Your task to perform on an android device: Open Youtube and go to the subscriptions tab Image 0: 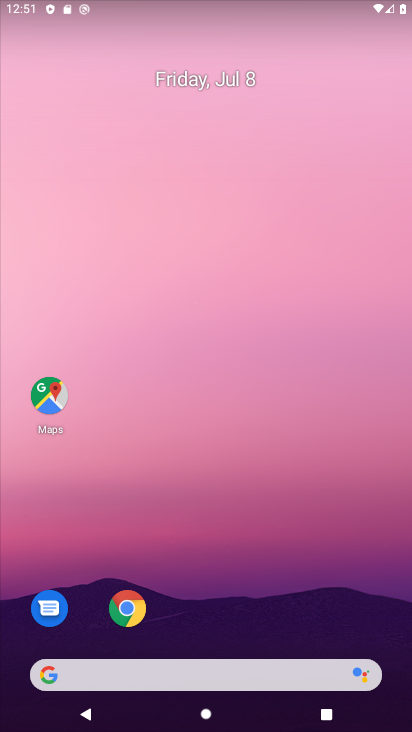
Step 0: drag from (239, 632) to (206, 187)
Your task to perform on an android device: Open Youtube and go to the subscriptions tab Image 1: 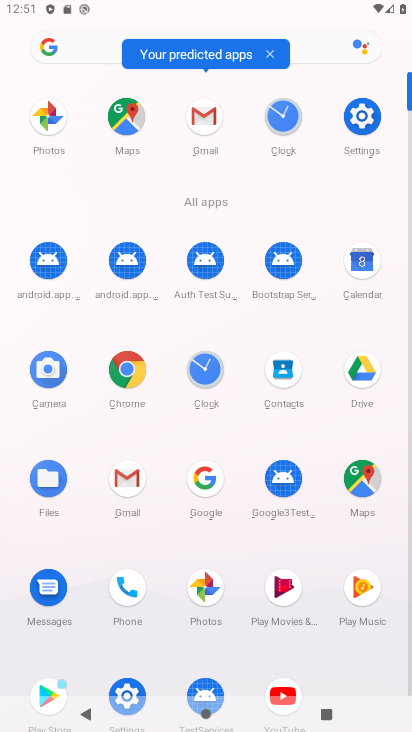
Step 1: click (279, 683)
Your task to perform on an android device: Open Youtube and go to the subscriptions tab Image 2: 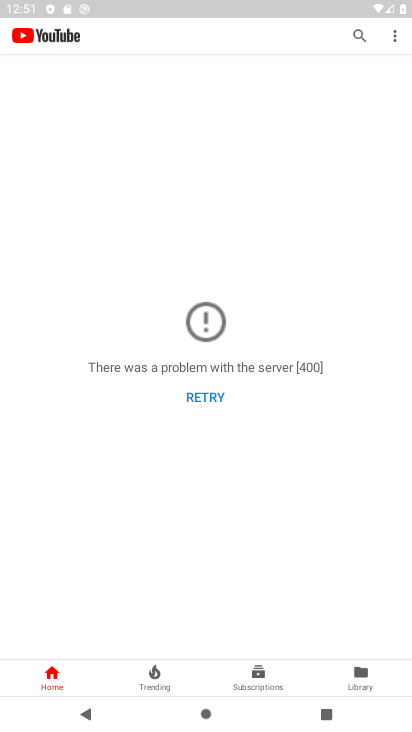
Step 2: click (256, 677)
Your task to perform on an android device: Open Youtube and go to the subscriptions tab Image 3: 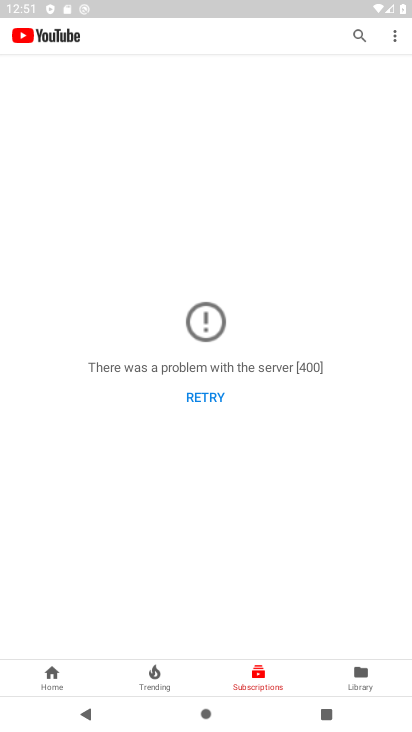
Step 3: task complete